Your task to perform on an android device: Open calendar and show me the first week of next month Image 0: 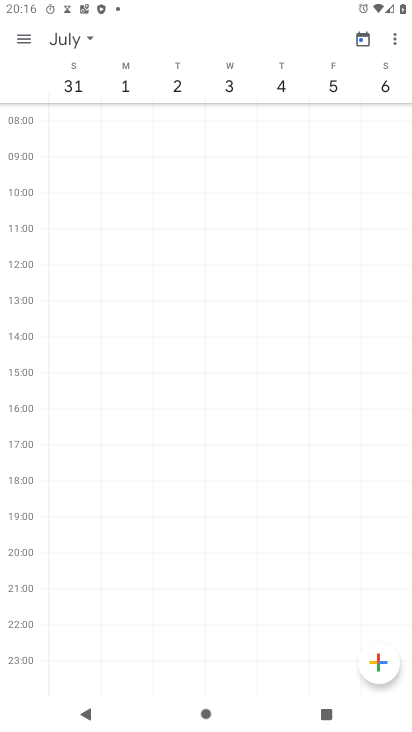
Step 0: task complete